Your task to perform on an android device: stop showing notifications on the lock screen Image 0: 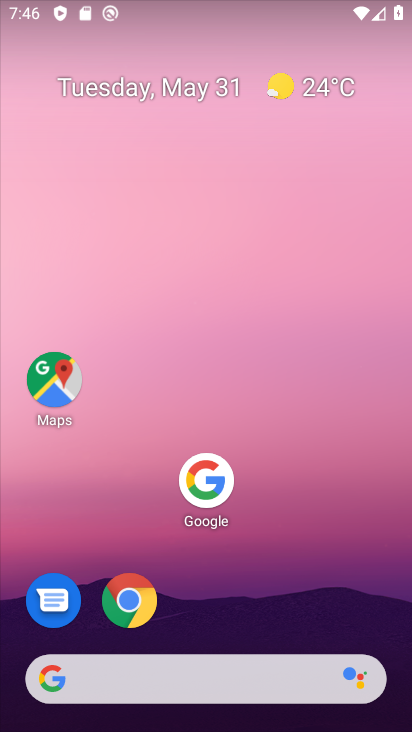
Step 0: drag from (258, 677) to (391, 54)
Your task to perform on an android device: stop showing notifications on the lock screen Image 1: 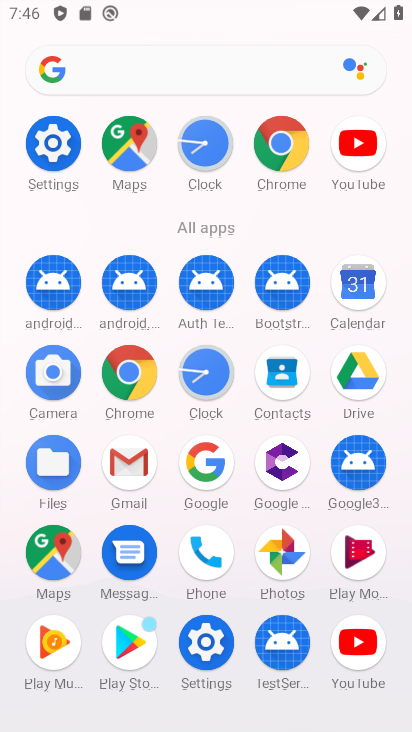
Step 1: click (49, 141)
Your task to perform on an android device: stop showing notifications on the lock screen Image 2: 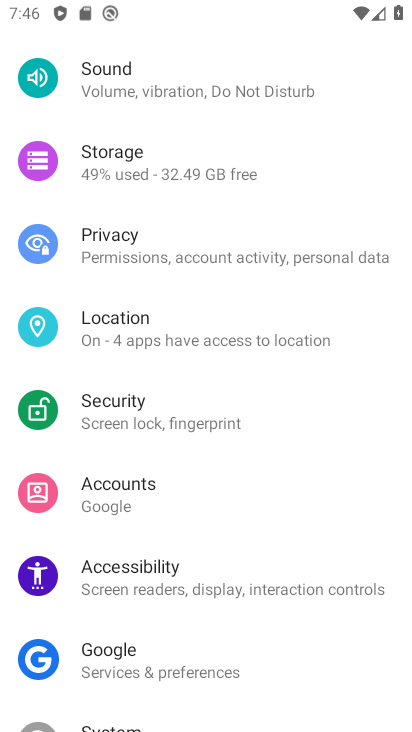
Step 2: drag from (289, 147) to (245, 532)
Your task to perform on an android device: stop showing notifications on the lock screen Image 3: 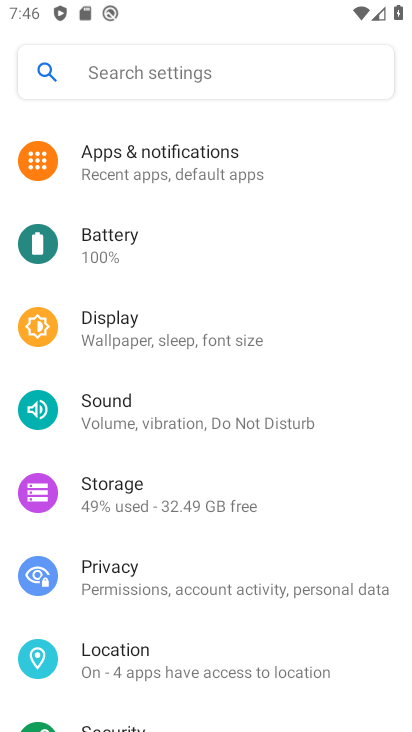
Step 3: click (215, 164)
Your task to perform on an android device: stop showing notifications on the lock screen Image 4: 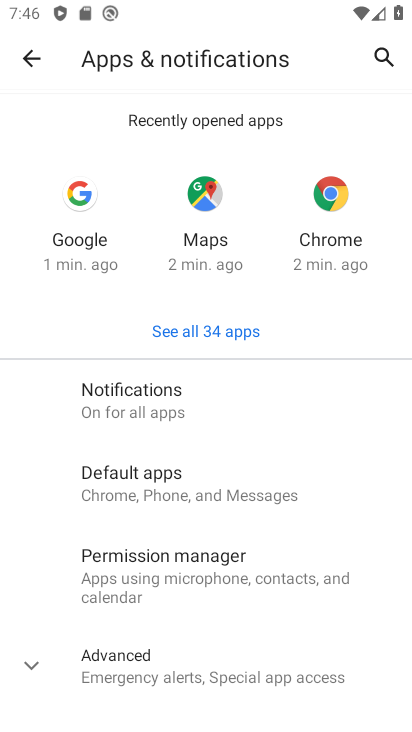
Step 4: click (142, 407)
Your task to perform on an android device: stop showing notifications on the lock screen Image 5: 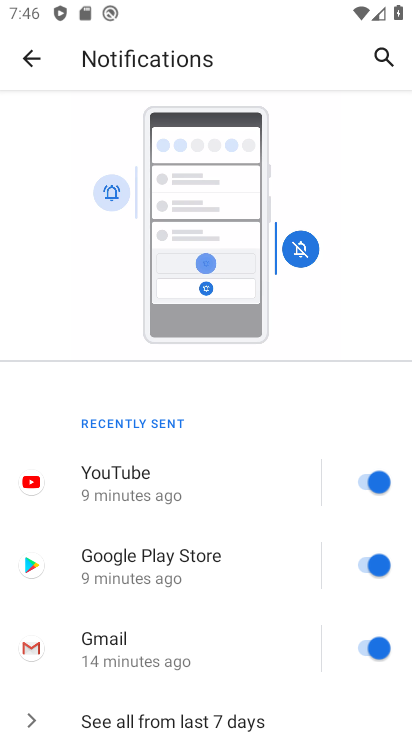
Step 5: drag from (224, 566) to (385, 24)
Your task to perform on an android device: stop showing notifications on the lock screen Image 6: 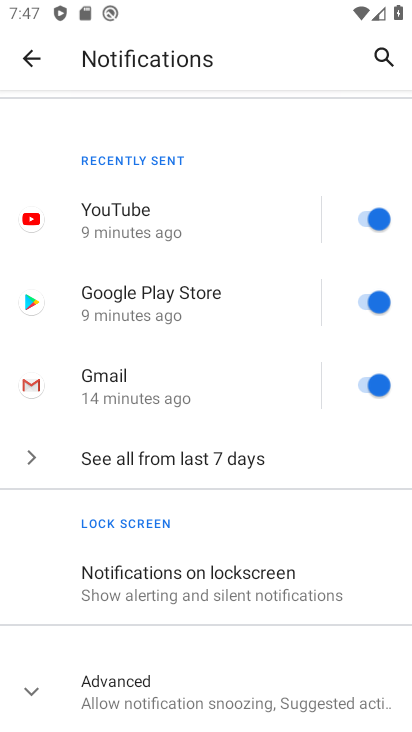
Step 6: click (200, 579)
Your task to perform on an android device: stop showing notifications on the lock screen Image 7: 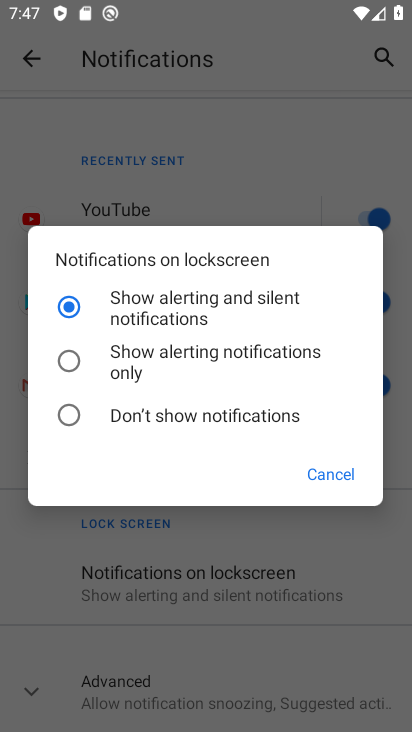
Step 7: click (67, 411)
Your task to perform on an android device: stop showing notifications on the lock screen Image 8: 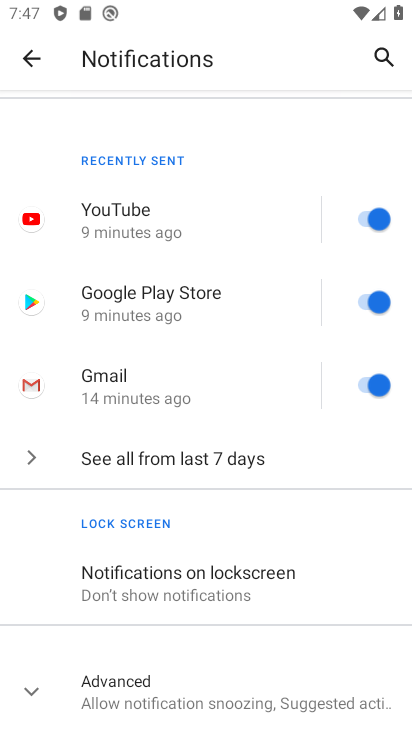
Step 8: task complete